Your task to perform on an android device: allow notifications from all sites in the chrome app Image 0: 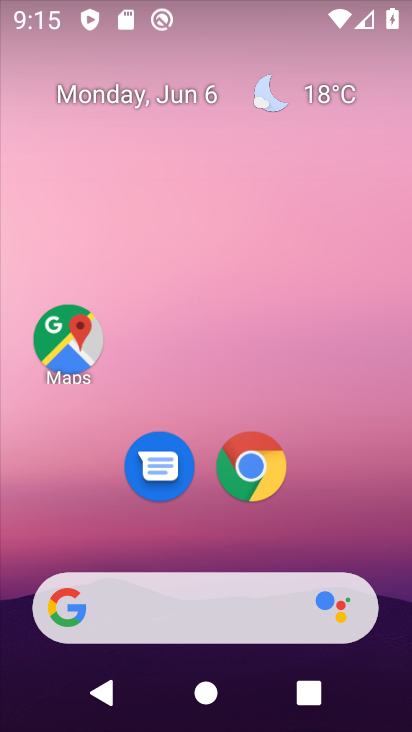
Step 0: drag from (171, 563) to (228, 9)
Your task to perform on an android device: allow notifications from all sites in the chrome app Image 1: 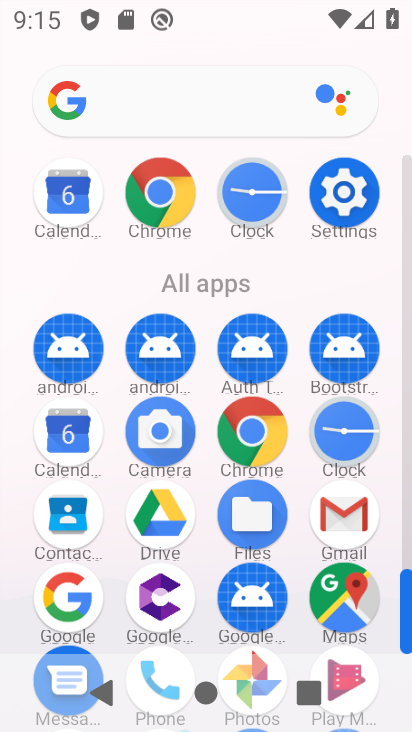
Step 1: click (157, 191)
Your task to perform on an android device: allow notifications from all sites in the chrome app Image 2: 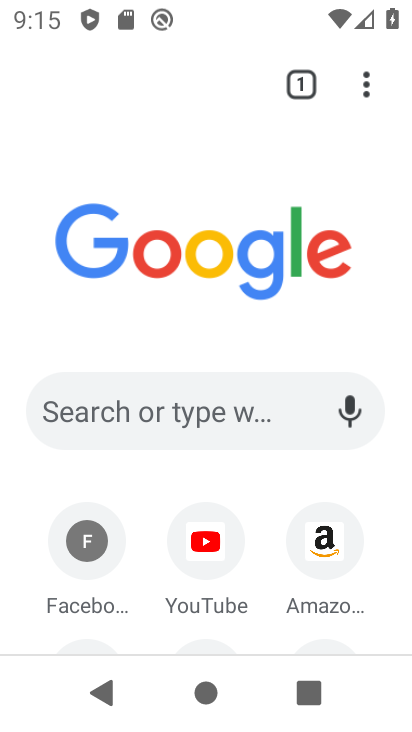
Step 2: click (371, 78)
Your task to perform on an android device: allow notifications from all sites in the chrome app Image 3: 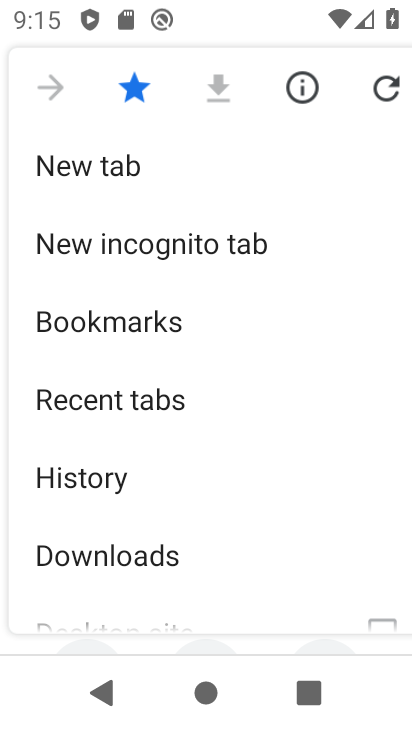
Step 3: drag from (171, 545) to (171, 394)
Your task to perform on an android device: allow notifications from all sites in the chrome app Image 4: 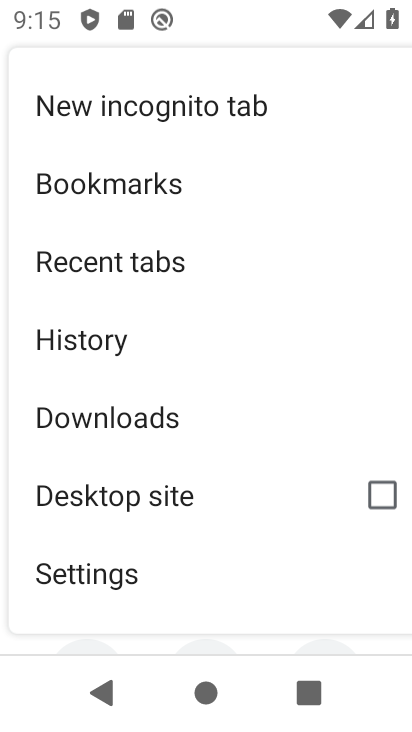
Step 4: drag from (222, 577) to (239, 380)
Your task to perform on an android device: allow notifications from all sites in the chrome app Image 5: 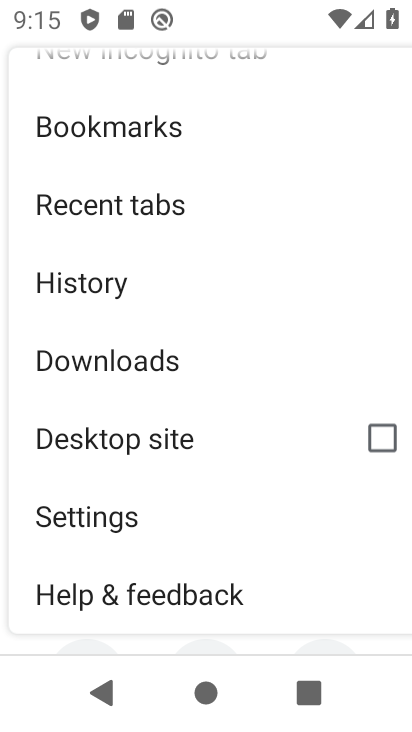
Step 5: click (116, 516)
Your task to perform on an android device: allow notifications from all sites in the chrome app Image 6: 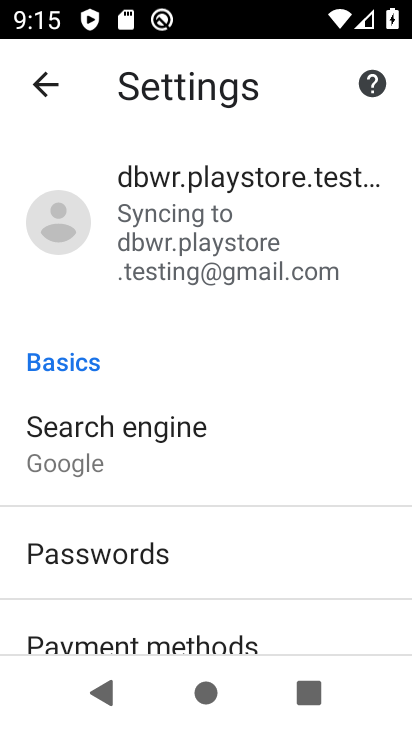
Step 6: drag from (225, 594) to (254, 399)
Your task to perform on an android device: allow notifications from all sites in the chrome app Image 7: 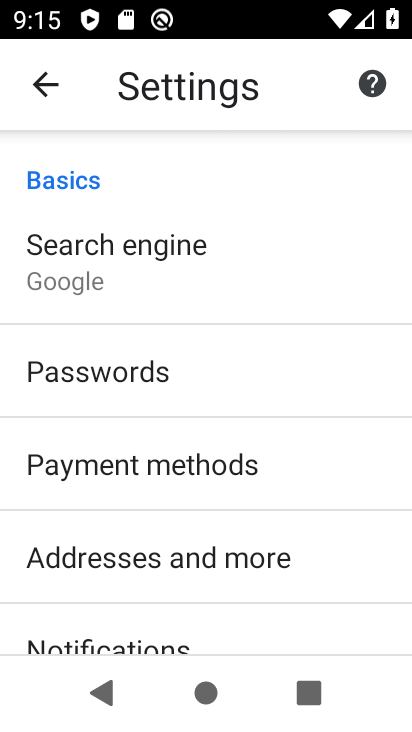
Step 7: drag from (153, 649) to (177, 424)
Your task to perform on an android device: allow notifications from all sites in the chrome app Image 8: 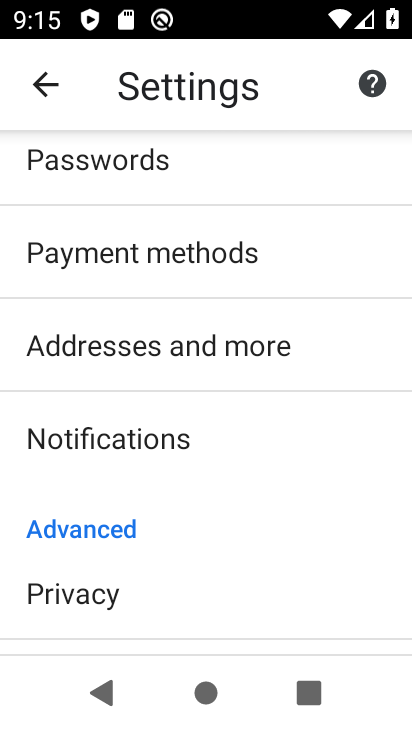
Step 8: click (164, 445)
Your task to perform on an android device: allow notifications from all sites in the chrome app Image 9: 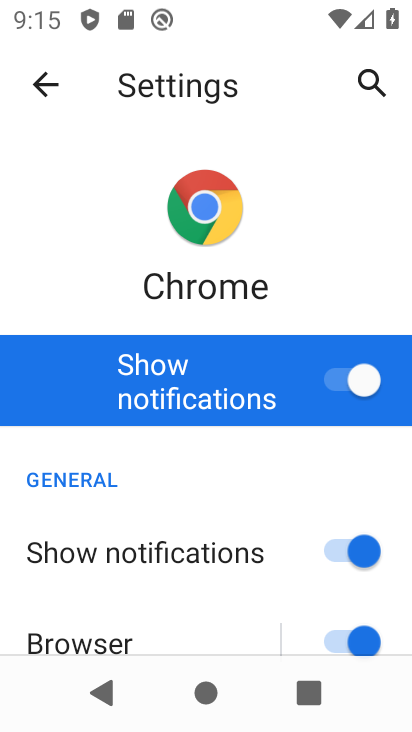
Step 9: task complete